Your task to perform on an android device: install app "Pluto TV - Live TV and Movies" Image 0: 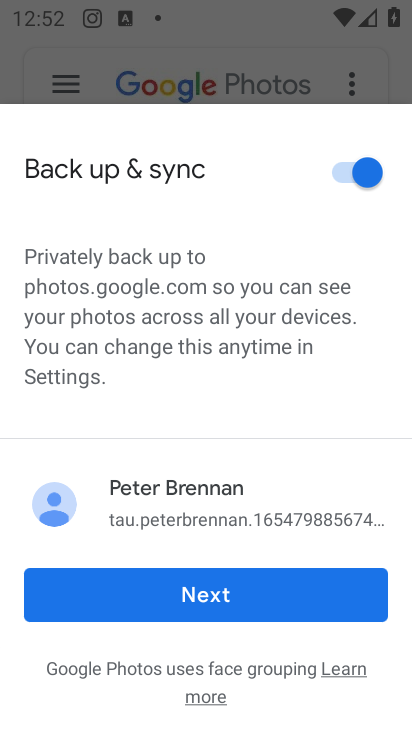
Step 0: press back button
Your task to perform on an android device: install app "Pluto TV - Live TV and Movies" Image 1: 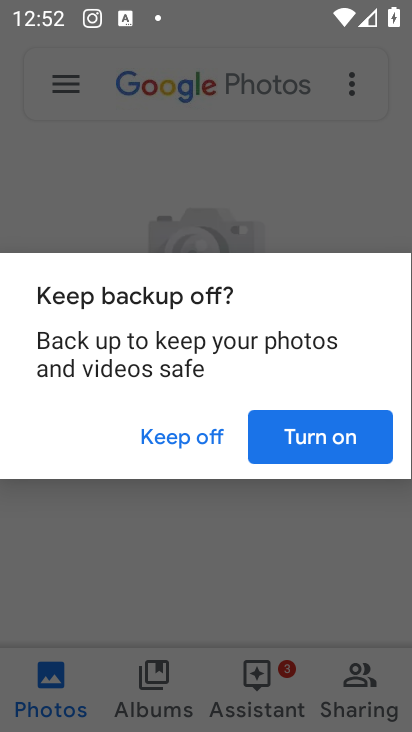
Step 1: press home button
Your task to perform on an android device: install app "Pluto TV - Live TV and Movies" Image 2: 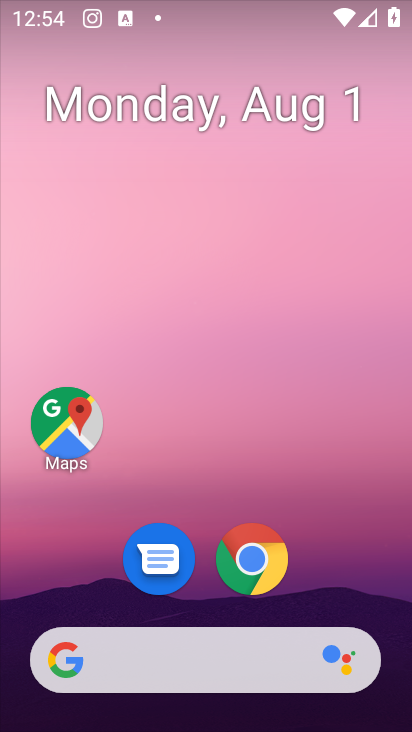
Step 2: drag from (89, 536) to (180, 42)
Your task to perform on an android device: install app "Pluto TV - Live TV and Movies" Image 3: 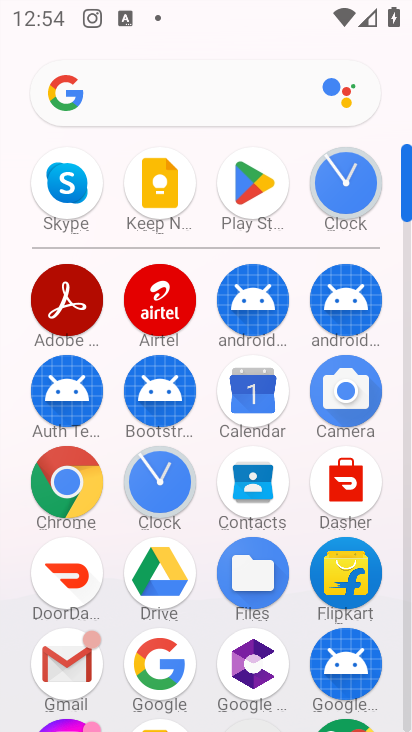
Step 3: click (227, 184)
Your task to perform on an android device: install app "Pluto TV - Live TV and Movies" Image 4: 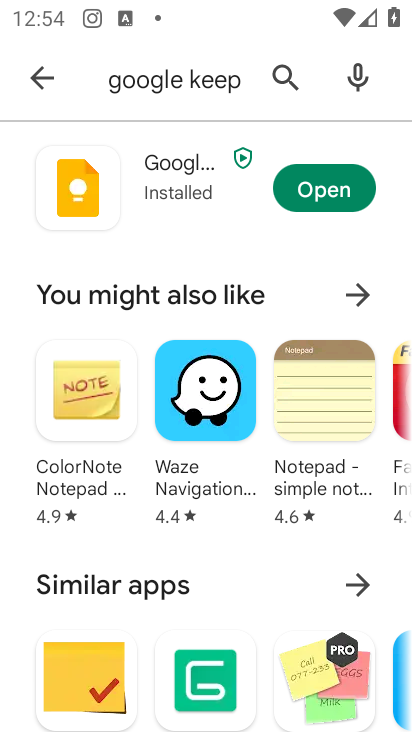
Step 4: click (287, 66)
Your task to perform on an android device: install app "Pluto TV - Live TV and Movies" Image 5: 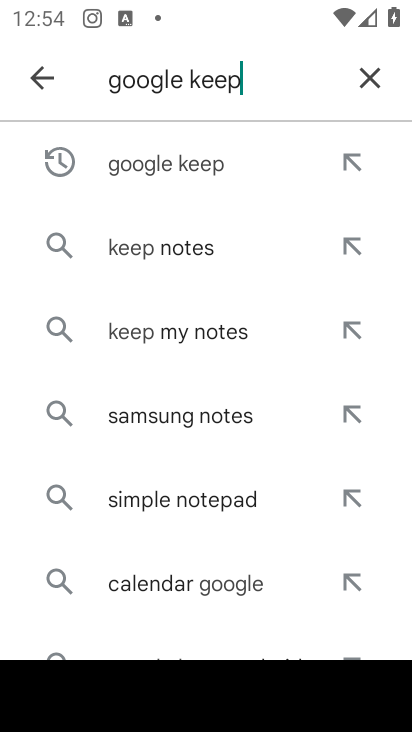
Step 5: click (369, 87)
Your task to perform on an android device: install app "Pluto TV - Live TV and Movies" Image 6: 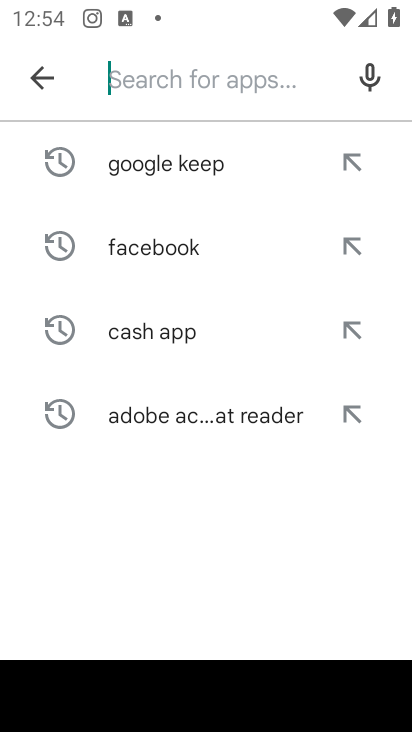
Step 6: click (139, 88)
Your task to perform on an android device: install app "Pluto TV - Live TV and Movies" Image 7: 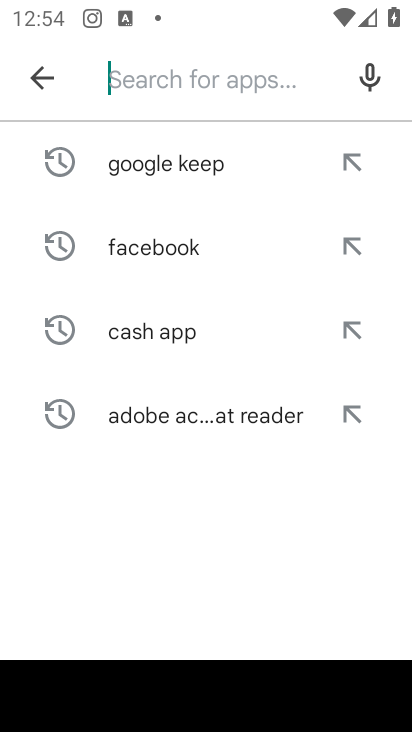
Step 7: type "plutotv"
Your task to perform on an android device: install app "Pluto TV - Live TV and Movies" Image 8: 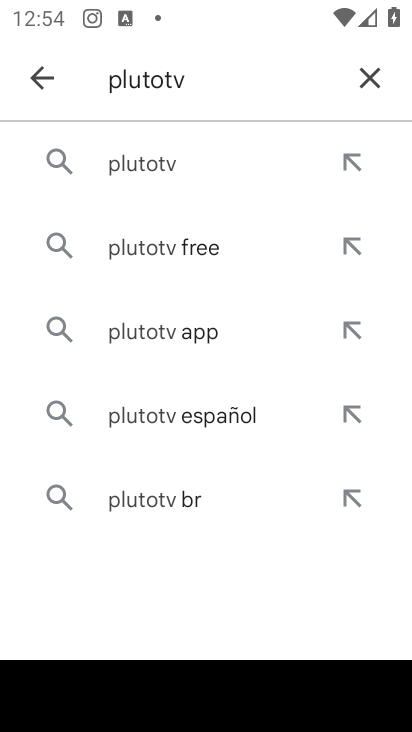
Step 8: click (119, 159)
Your task to perform on an android device: install app "Pluto TV - Live TV and Movies" Image 9: 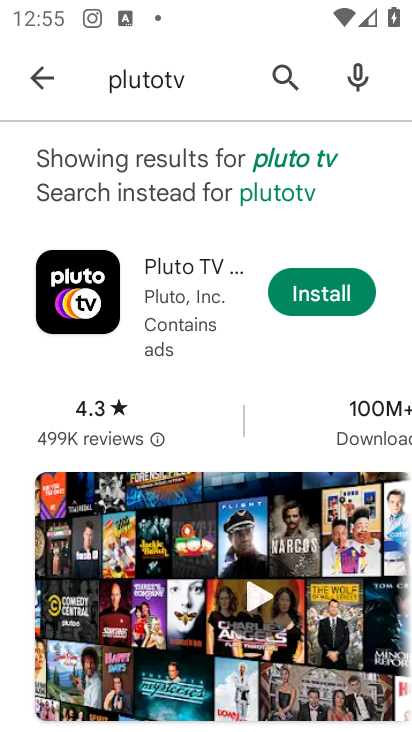
Step 9: click (321, 298)
Your task to perform on an android device: install app "Pluto TV - Live TV and Movies" Image 10: 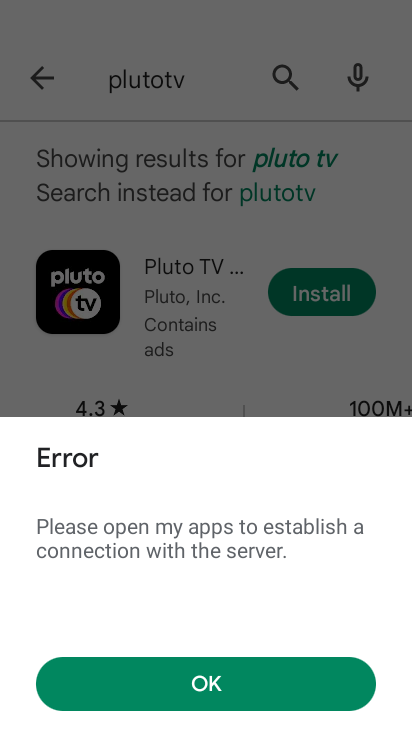
Step 10: click (269, 688)
Your task to perform on an android device: install app "Pluto TV - Live TV and Movies" Image 11: 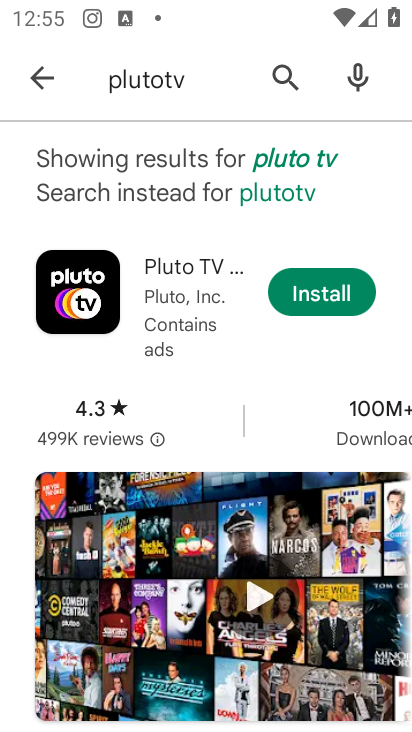
Step 11: task complete